Your task to perform on an android device: Go to sound settings Image 0: 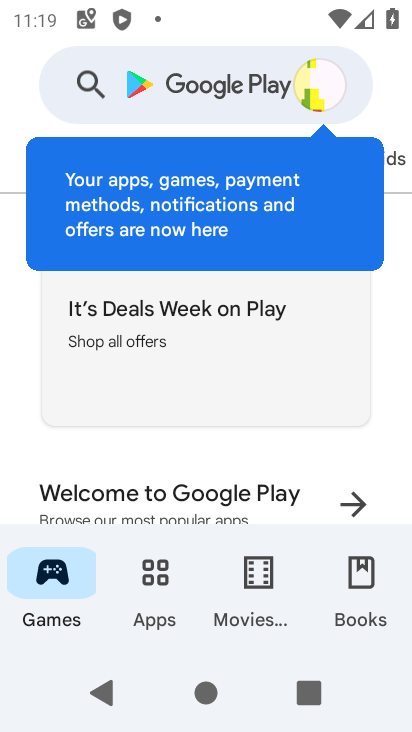
Step 0: press home button
Your task to perform on an android device: Go to sound settings Image 1: 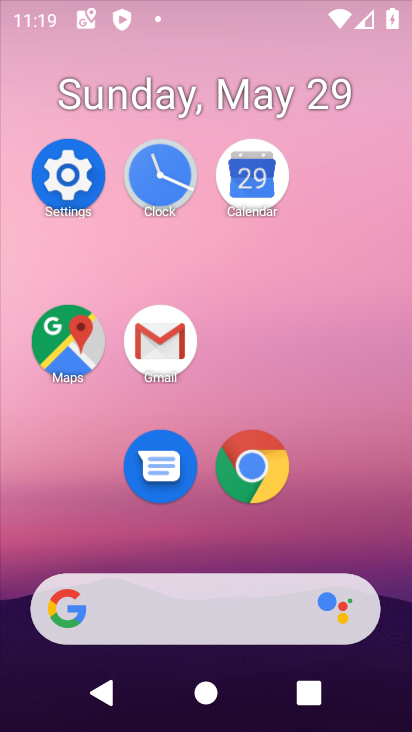
Step 1: click (65, 185)
Your task to perform on an android device: Go to sound settings Image 2: 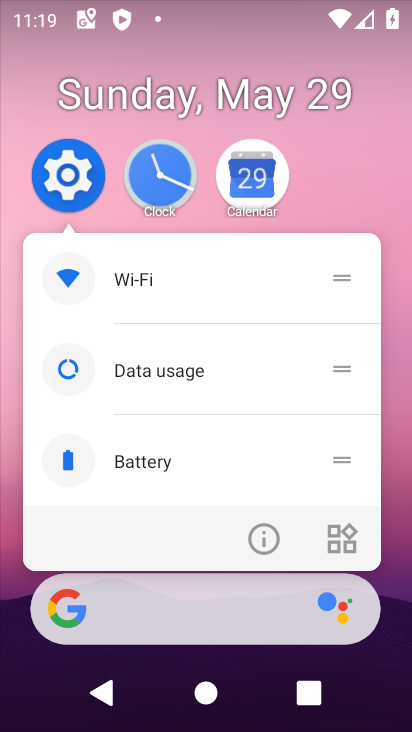
Step 2: click (66, 163)
Your task to perform on an android device: Go to sound settings Image 3: 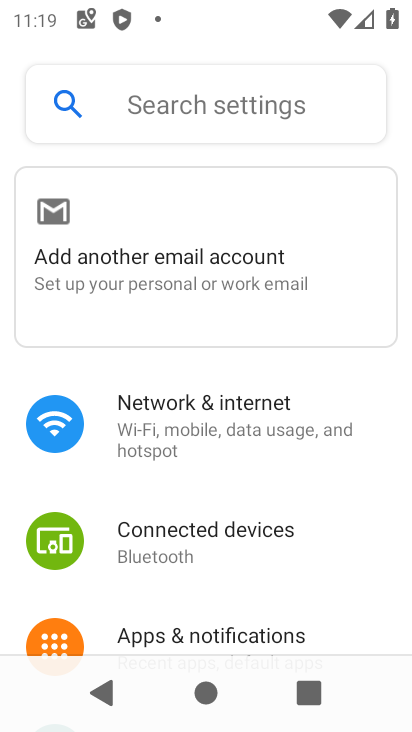
Step 3: drag from (307, 586) to (285, 181)
Your task to perform on an android device: Go to sound settings Image 4: 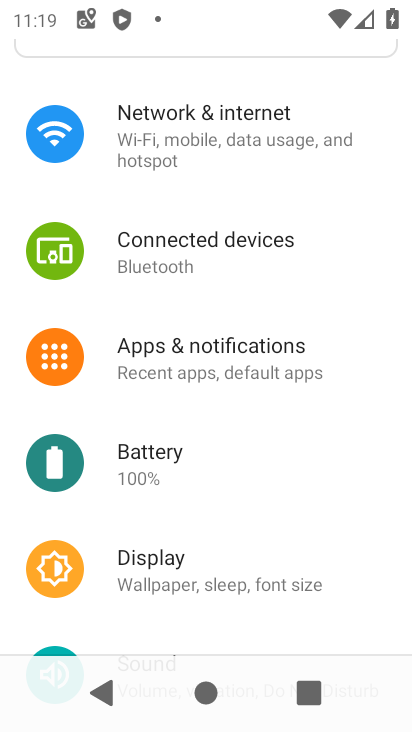
Step 4: drag from (326, 565) to (303, 179)
Your task to perform on an android device: Go to sound settings Image 5: 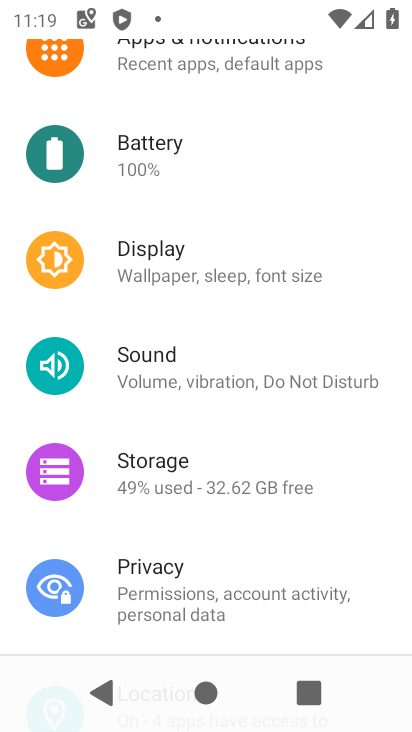
Step 5: click (258, 382)
Your task to perform on an android device: Go to sound settings Image 6: 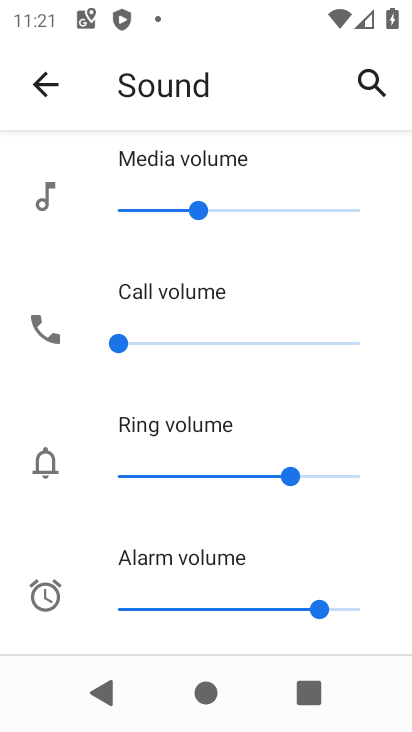
Step 6: task complete